Your task to perform on an android device: set an alarm Image 0: 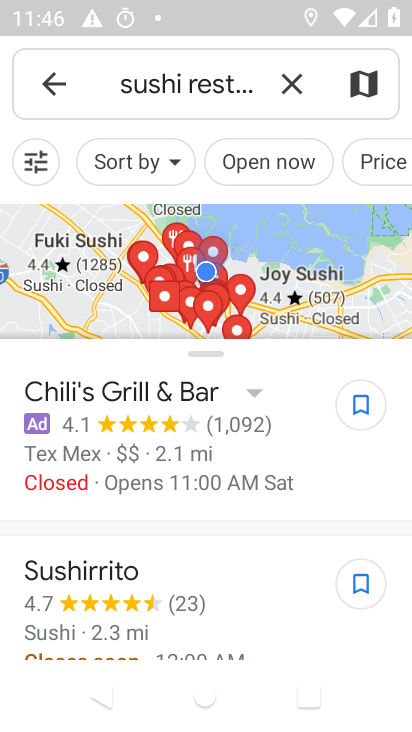
Step 0: press back button
Your task to perform on an android device: set an alarm Image 1: 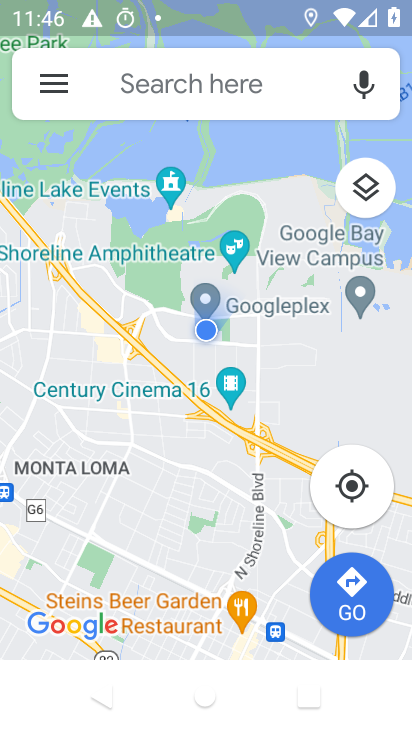
Step 1: press back button
Your task to perform on an android device: set an alarm Image 2: 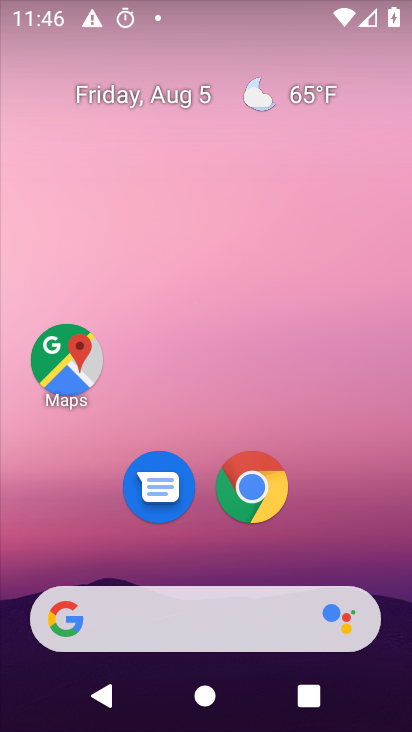
Step 2: drag from (203, 559) to (257, 131)
Your task to perform on an android device: set an alarm Image 3: 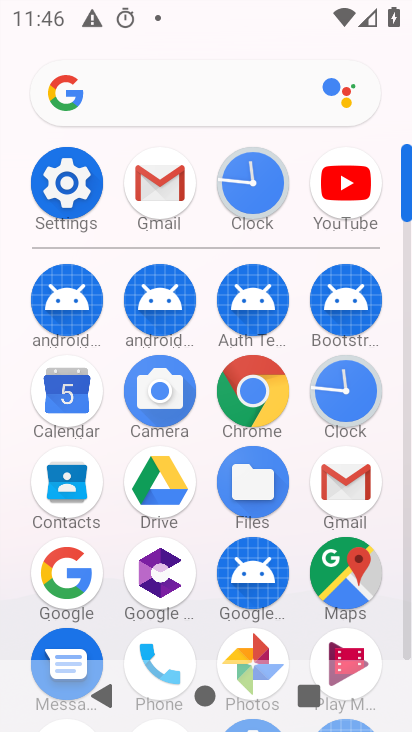
Step 3: click (259, 187)
Your task to perform on an android device: set an alarm Image 4: 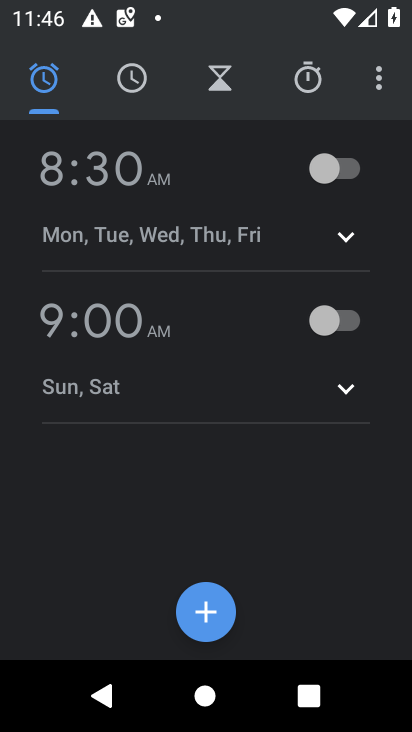
Step 4: click (346, 170)
Your task to perform on an android device: set an alarm Image 5: 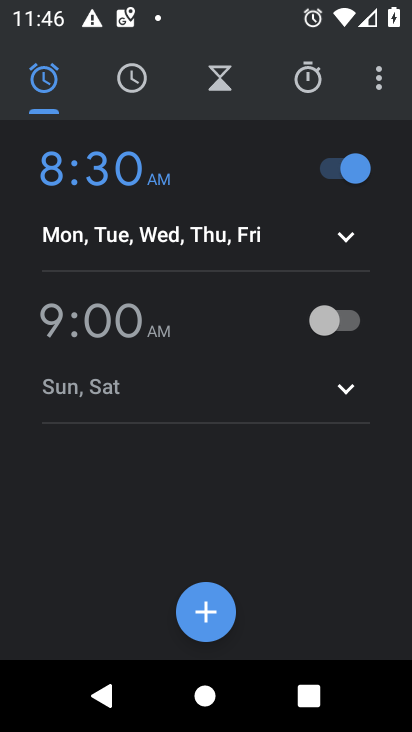
Step 5: task complete